Your task to perform on an android device: Go to ESPN.com Image 0: 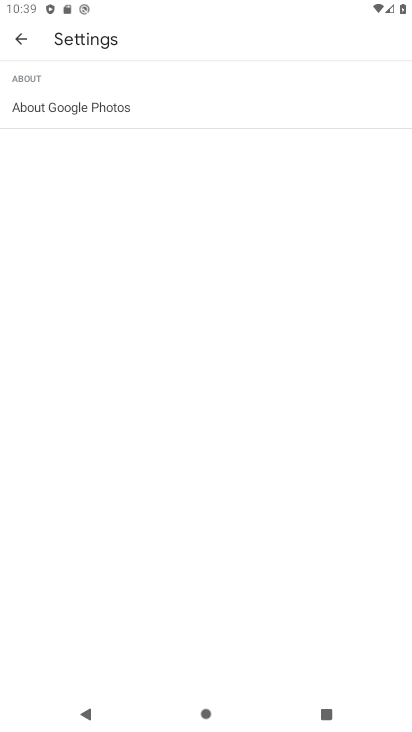
Step 0: drag from (205, 594) to (226, 247)
Your task to perform on an android device: Go to ESPN.com Image 1: 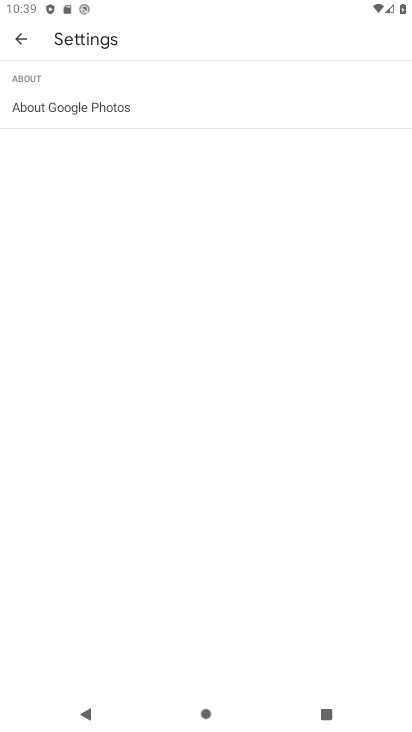
Step 1: press home button
Your task to perform on an android device: Go to ESPN.com Image 2: 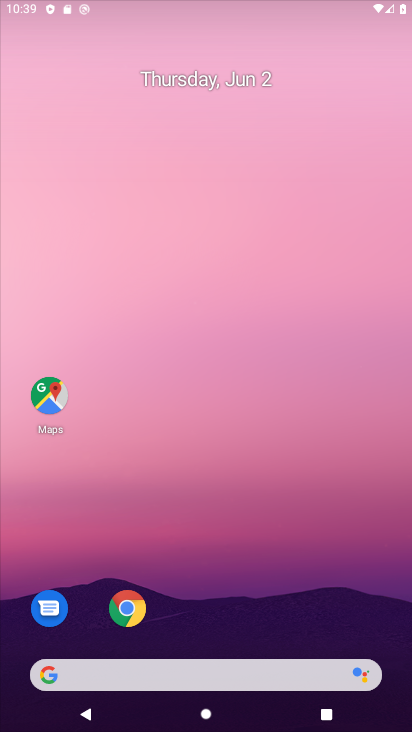
Step 2: click (146, 180)
Your task to perform on an android device: Go to ESPN.com Image 3: 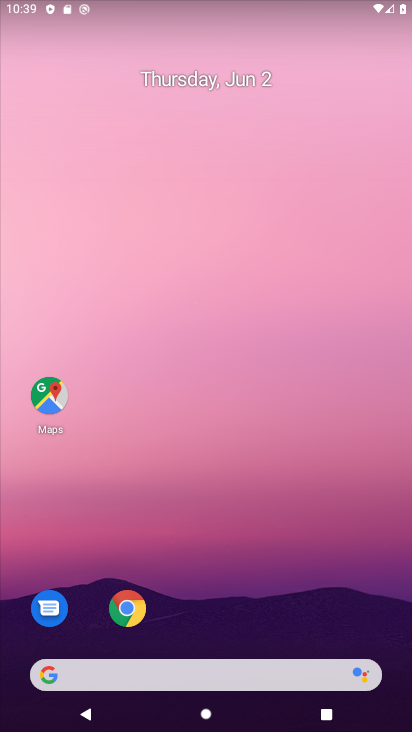
Step 3: drag from (162, 610) to (180, 470)
Your task to perform on an android device: Go to ESPN.com Image 4: 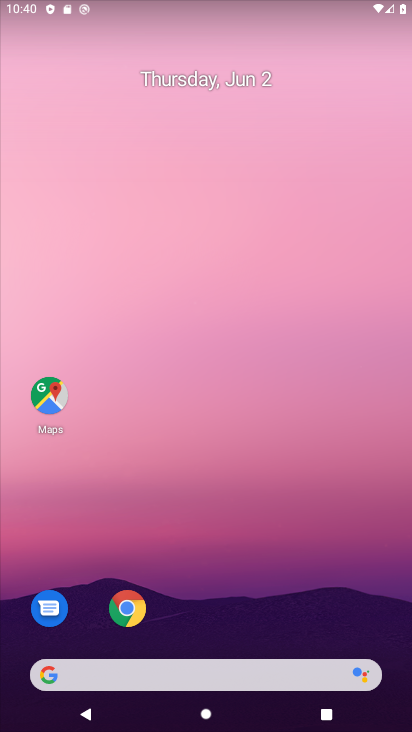
Step 4: drag from (183, 599) to (198, 264)
Your task to perform on an android device: Go to ESPN.com Image 5: 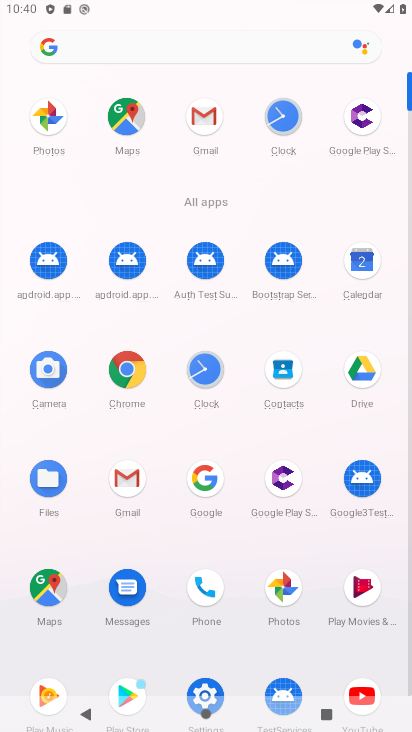
Step 5: click (131, 53)
Your task to perform on an android device: Go to ESPN.com Image 6: 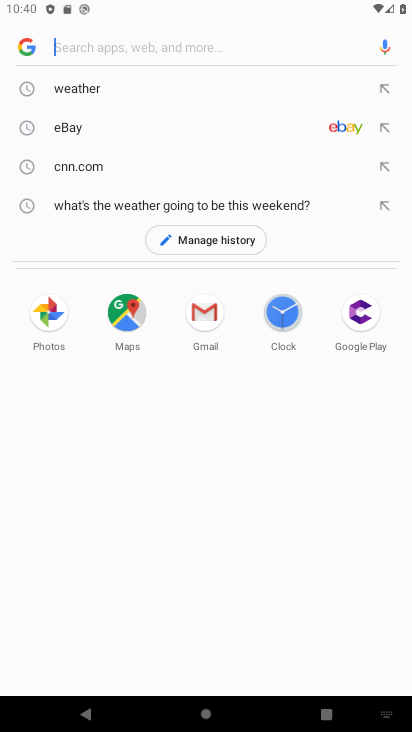
Step 6: type "ESPN.com"
Your task to perform on an android device: Go to ESPN.com Image 7: 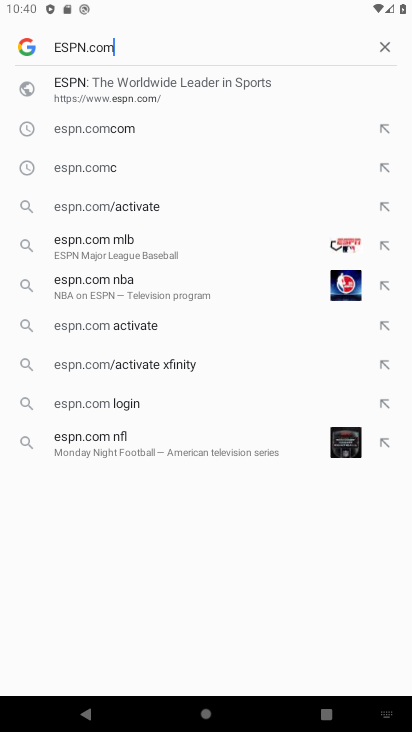
Step 7: click (124, 87)
Your task to perform on an android device: Go to ESPN.com Image 8: 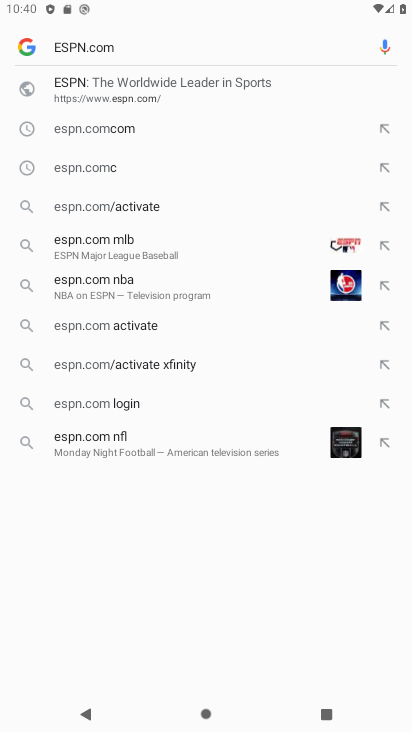
Step 8: task complete